Your task to perform on an android device: Go to Android settings Image 0: 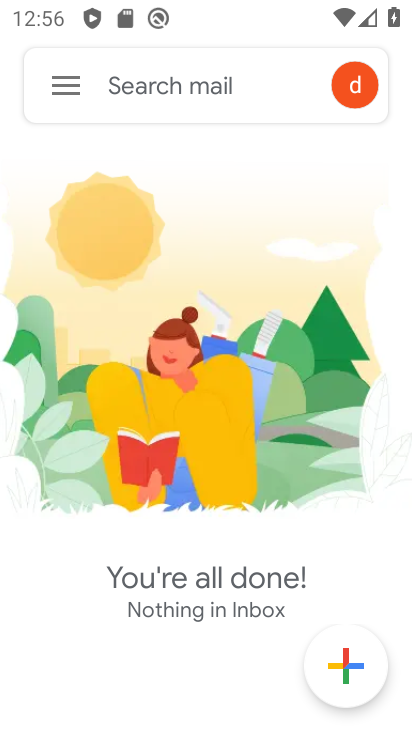
Step 0: press home button
Your task to perform on an android device: Go to Android settings Image 1: 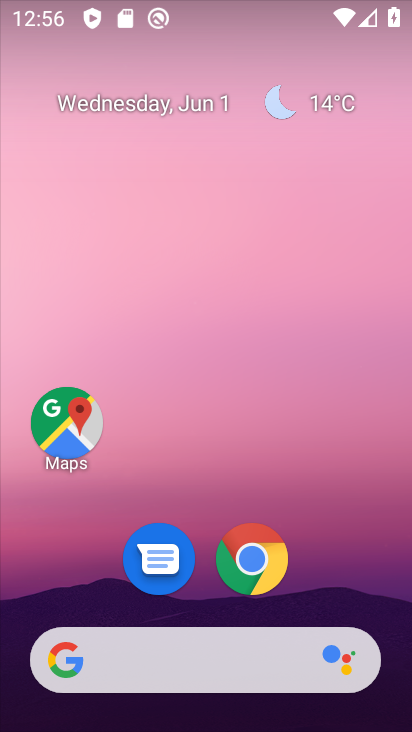
Step 1: drag from (394, 687) to (286, 62)
Your task to perform on an android device: Go to Android settings Image 2: 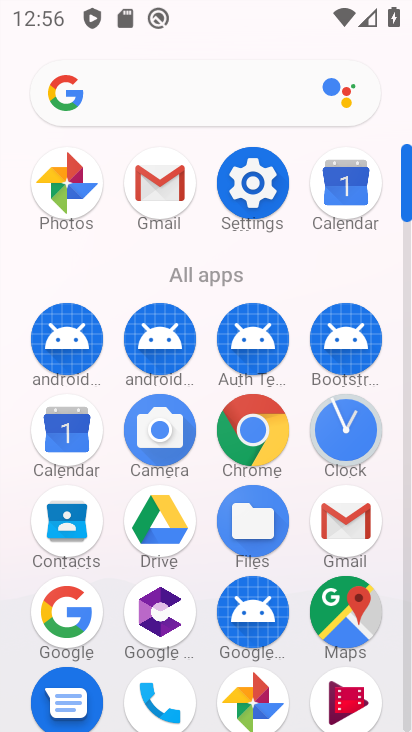
Step 2: click (256, 190)
Your task to perform on an android device: Go to Android settings Image 3: 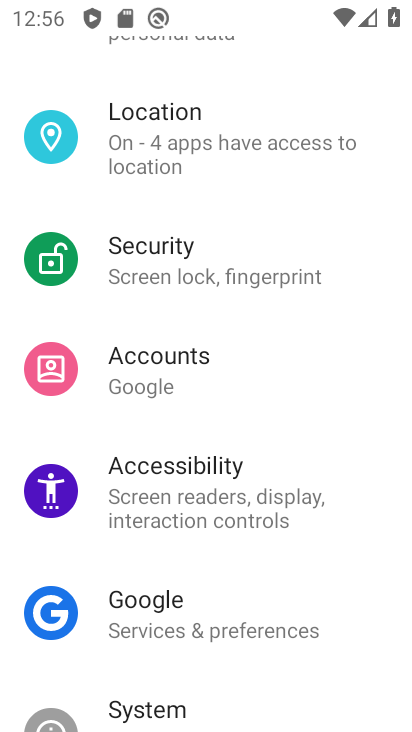
Step 3: task complete